Your task to perform on an android device: find photos in the google photos app Image 0: 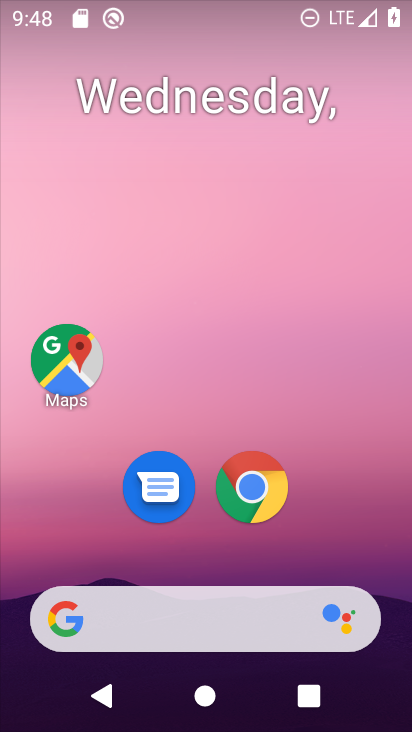
Step 0: drag from (320, 505) to (223, 54)
Your task to perform on an android device: find photos in the google photos app Image 1: 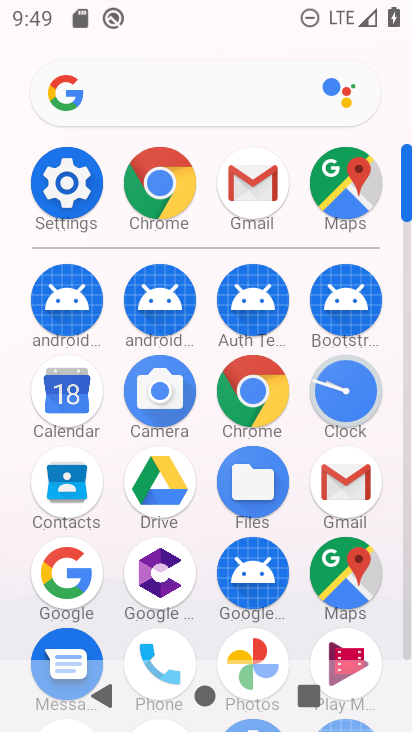
Step 1: drag from (208, 592) to (199, 275)
Your task to perform on an android device: find photos in the google photos app Image 2: 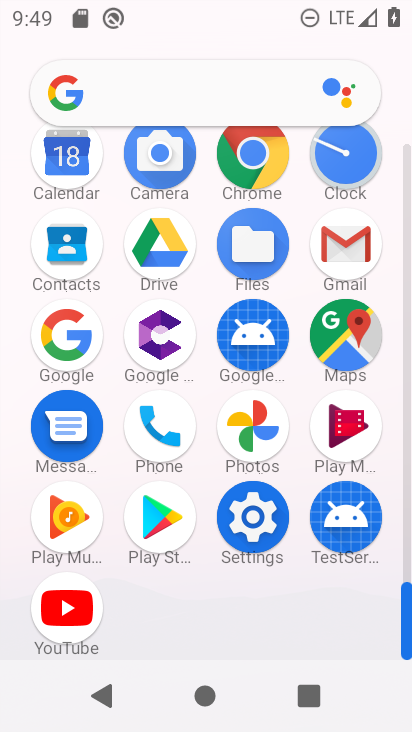
Step 2: click (253, 412)
Your task to perform on an android device: find photos in the google photos app Image 3: 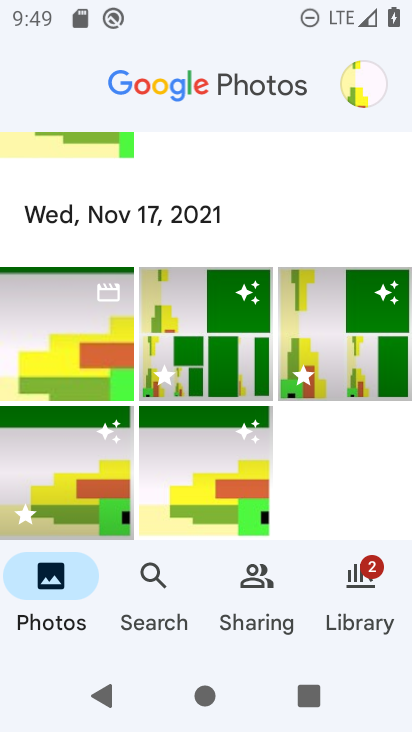
Step 3: click (144, 571)
Your task to perform on an android device: find photos in the google photos app Image 4: 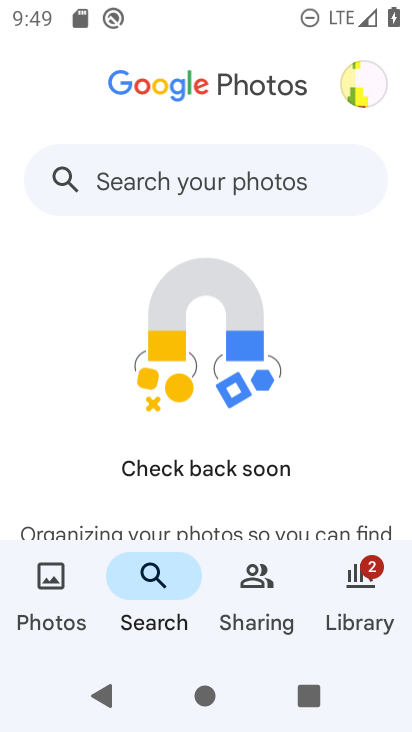
Step 4: click (175, 180)
Your task to perform on an android device: find photos in the google photos app Image 5: 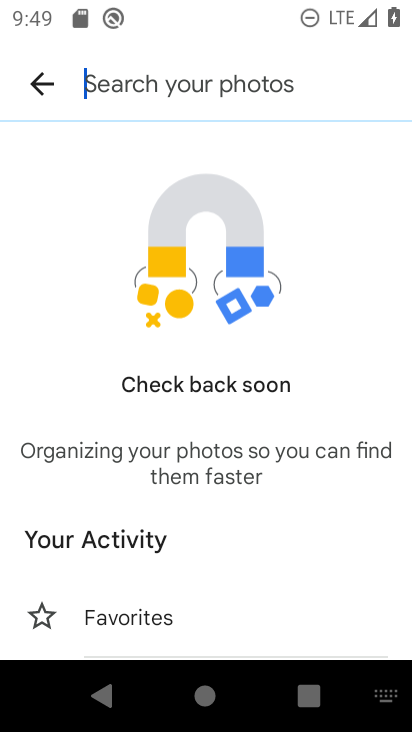
Step 5: task complete